Your task to perform on an android device: change the clock display to digital Image 0: 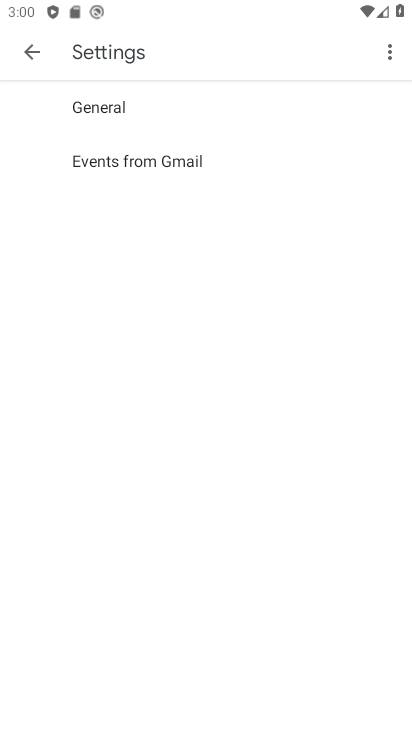
Step 0: press home button
Your task to perform on an android device: change the clock display to digital Image 1: 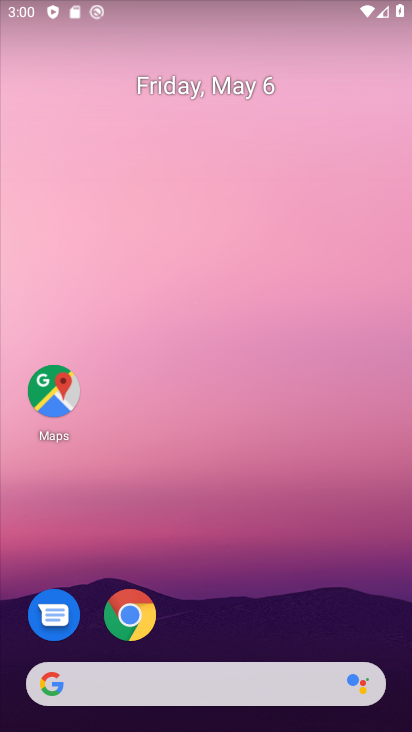
Step 1: drag from (310, 631) to (298, 64)
Your task to perform on an android device: change the clock display to digital Image 2: 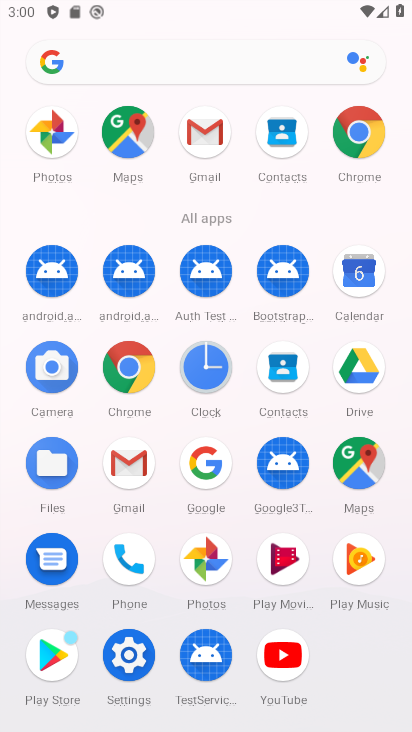
Step 2: click (208, 369)
Your task to perform on an android device: change the clock display to digital Image 3: 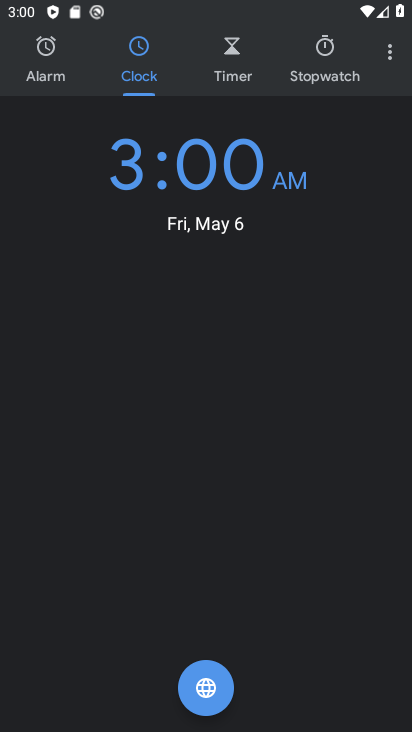
Step 3: click (391, 52)
Your task to perform on an android device: change the clock display to digital Image 4: 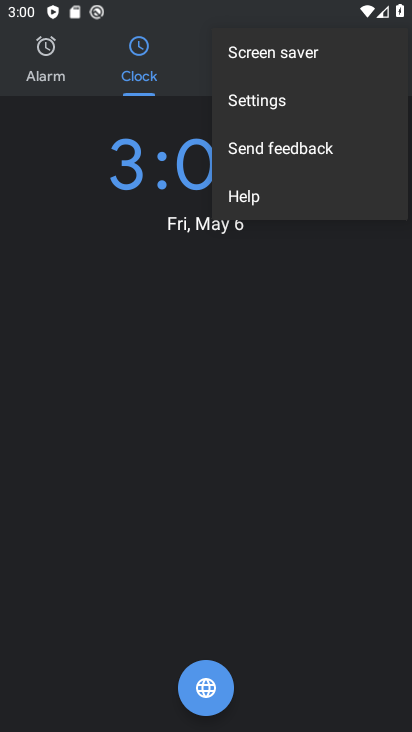
Step 4: click (273, 103)
Your task to perform on an android device: change the clock display to digital Image 5: 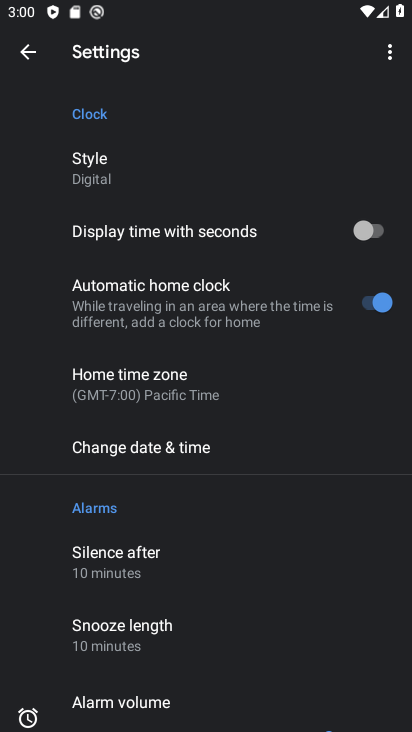
Step 5: task complete